Your task to perform on an android device: turn smart compose on in the gmail app Image 0: 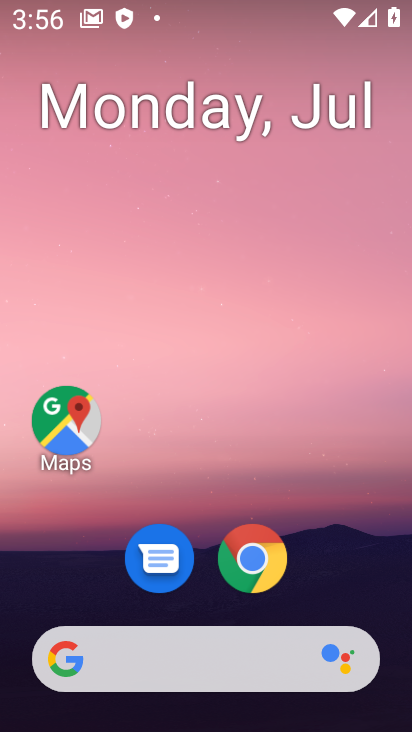
Step 0: drag from (83, 589) to (221, 11)
Your task to perform on an android device: turn smart compose on in the gmail app Image 1: 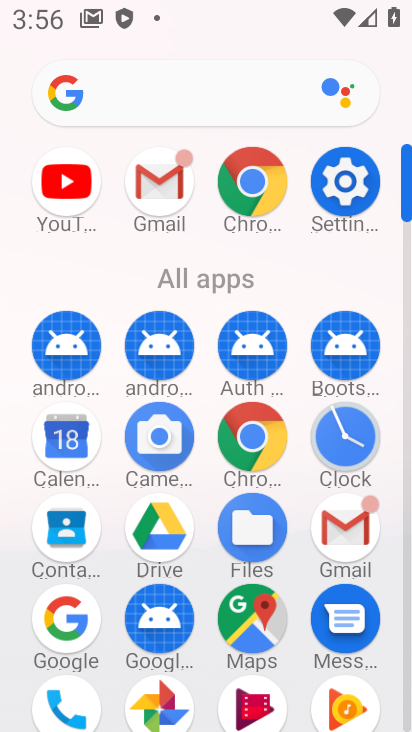
Step 1: click (148, 172)
Your task to perform on an android device: turn smart compose on in the gmail app Image 2: 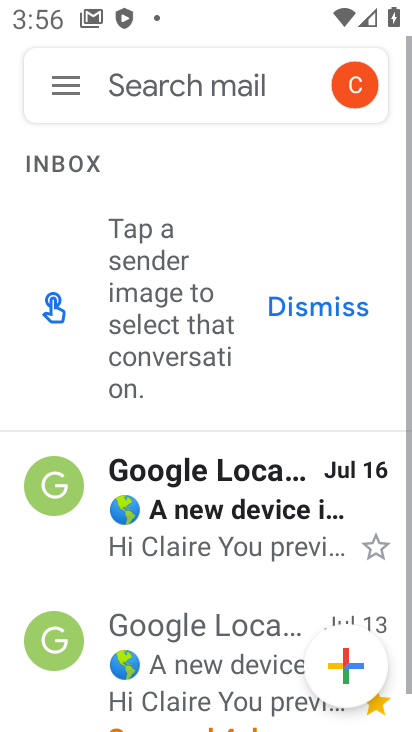
Step 2: click (52, 89)
Your task to perform on an android device: turn smart compose on in the gmail app Image 3: 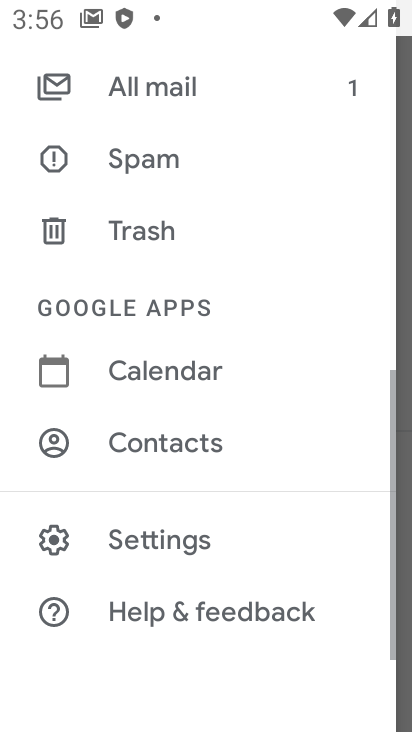
Step 3: click (151, 544)
Your task to perform on an android device: turn smart compose on in the gmail app Image 4: 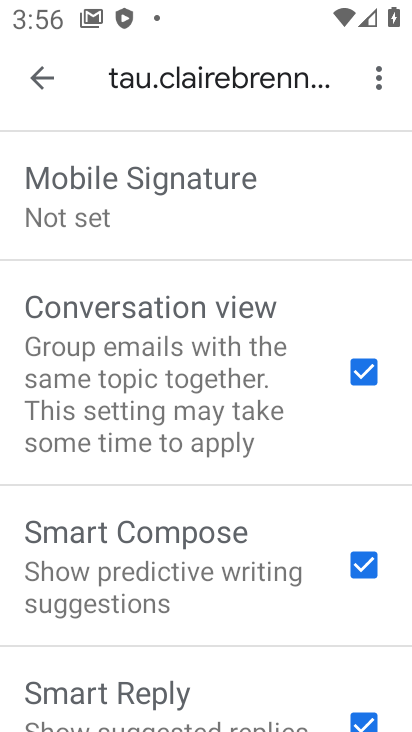
Step 4: task complete